Your task to perform on an android device: change the clock display to show seconds Image 0: 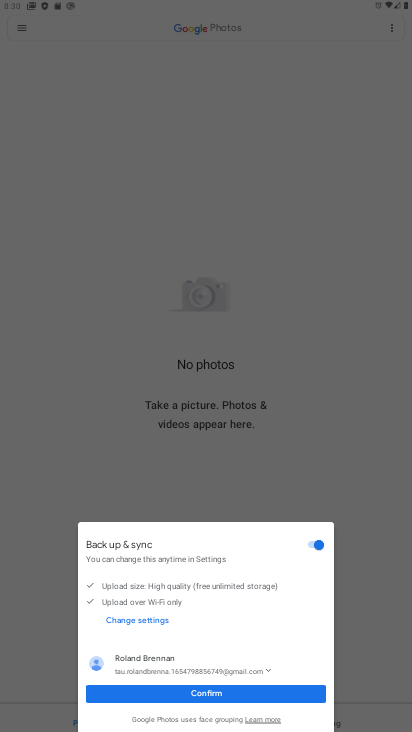
Step 0: press home button
Your task to perform on an android device: change the clock display to show seconds Image 1: 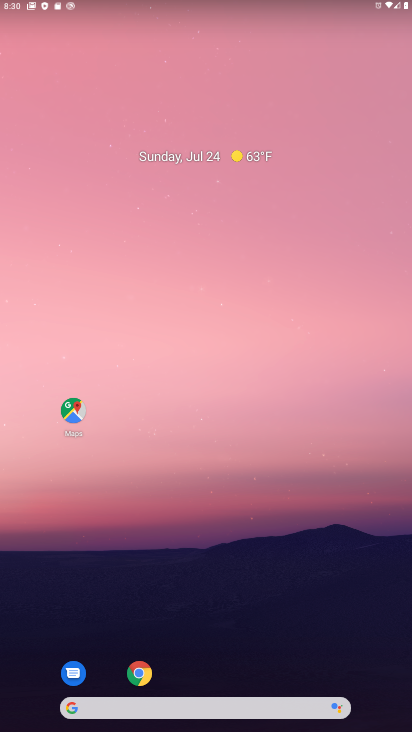
Step 1: drag from (212, 690) to (147, 15)
Your task to perform on an android device: change the clock display to show seconds Image 2: 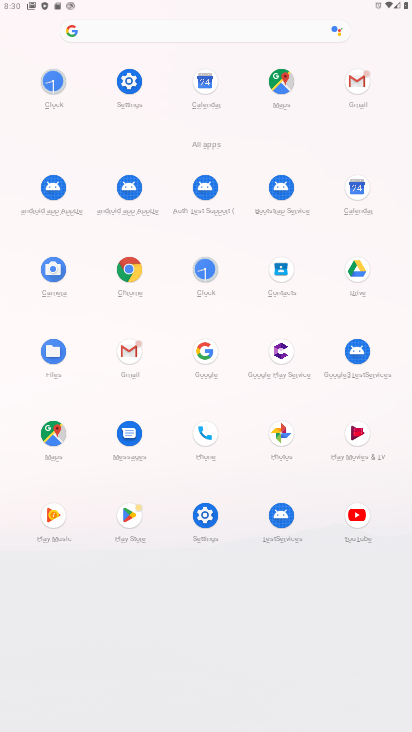
Step 2: click (198, 260)
Your task to perform on an android device: change the clock display to show seconds Image 3: 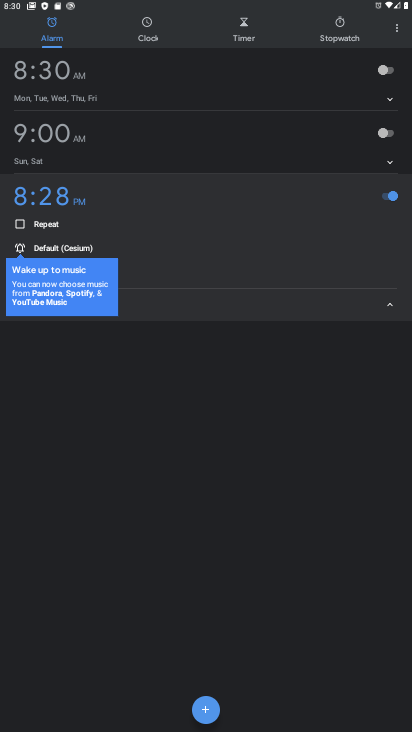
Step 3: click (399, 27)
Your task to perform on an android device: change the clock display to show seconds Image 4: 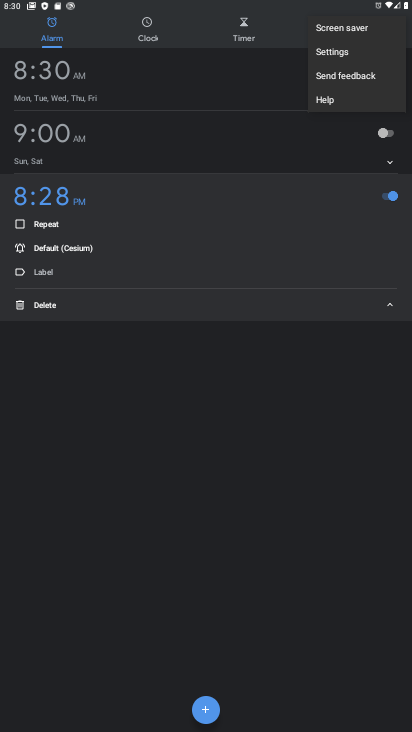
Step 4: click (330, 57)
Your task to perform on an android device: change the clock display to show seconds Image 5: 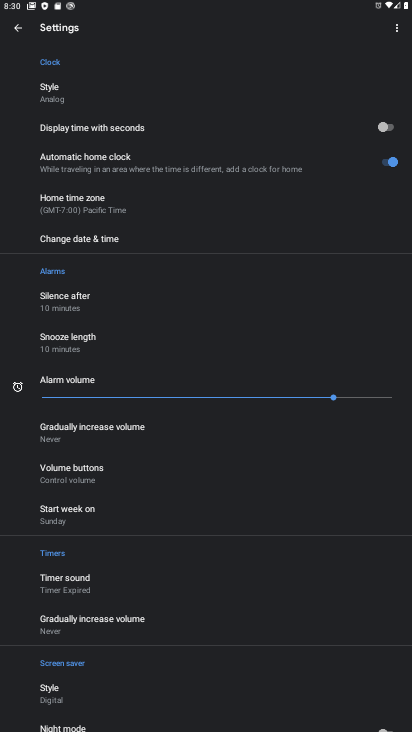
Step 5: click (66, 88)
Your task to perform on an android device: change the clock display to show seconds Image 6: 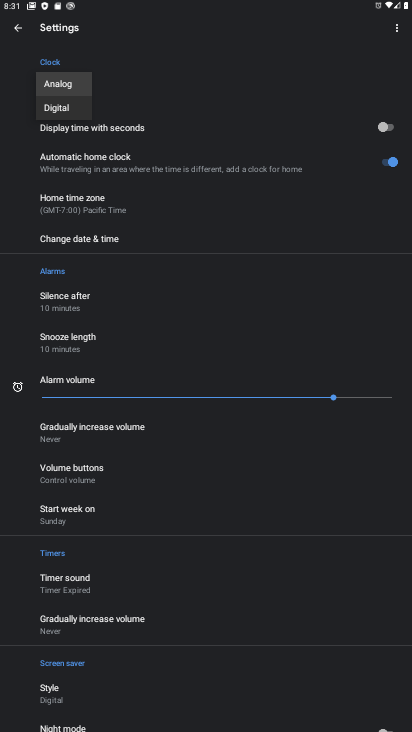
Step 6: click (16, 37)
Your task to perform on an android device: change the clock display to show seconds Image 7: 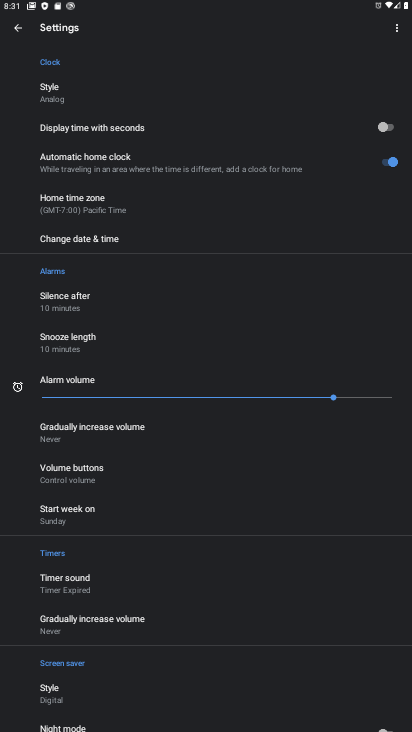
Step 7: click (371, 132)
Your task to perform on an android device: change the clock display to show seconds Image 8: 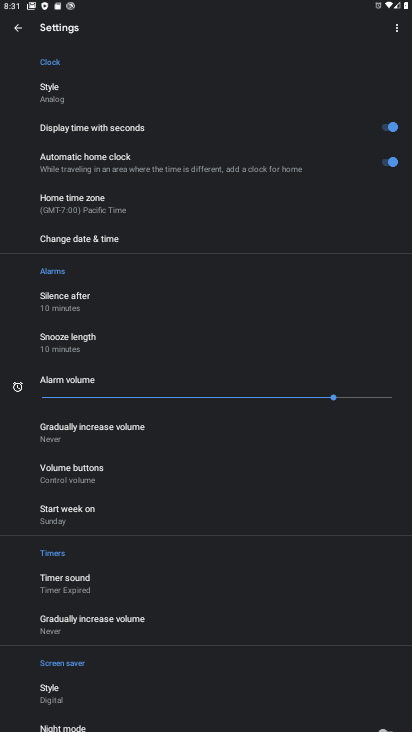
Step 8: task complete